Your task to perform on an android device: Show me recent news Image 0: 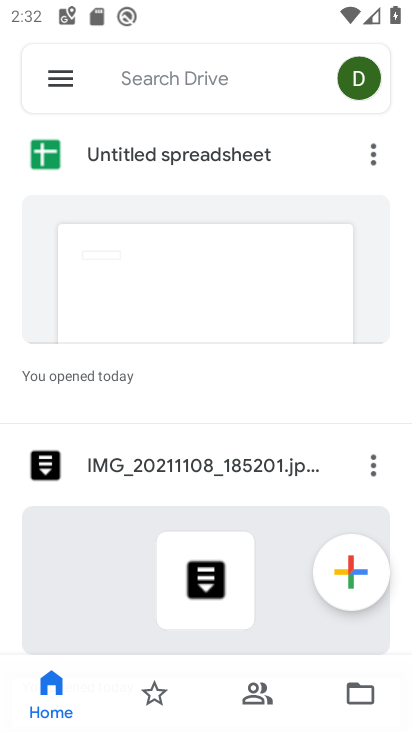
Step 0: press home button
Your task to perform on an android device: Show me recent news Image 1: 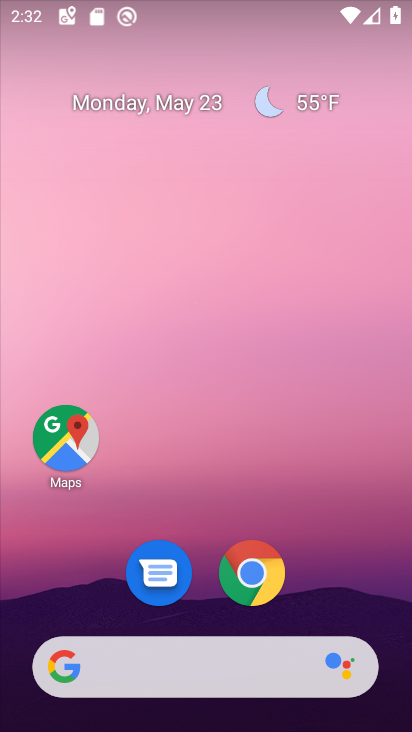
Step 1: click (229, 668)
Your task to perform on an android device: Show me recent news Image 2: 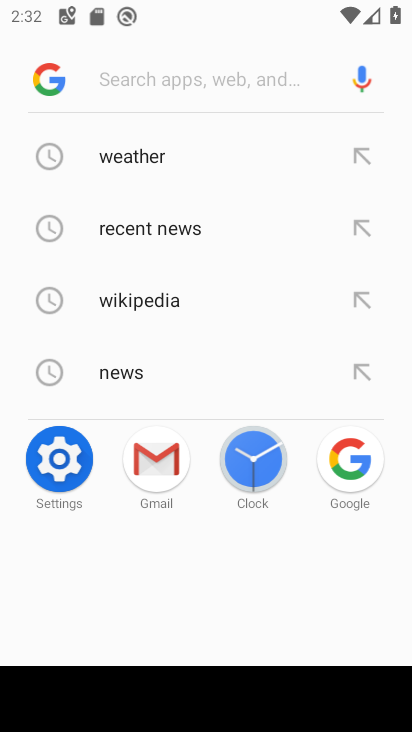
Step 2: click (168, 225)
Your task to perform on an android device: Show me recent news Image 3: 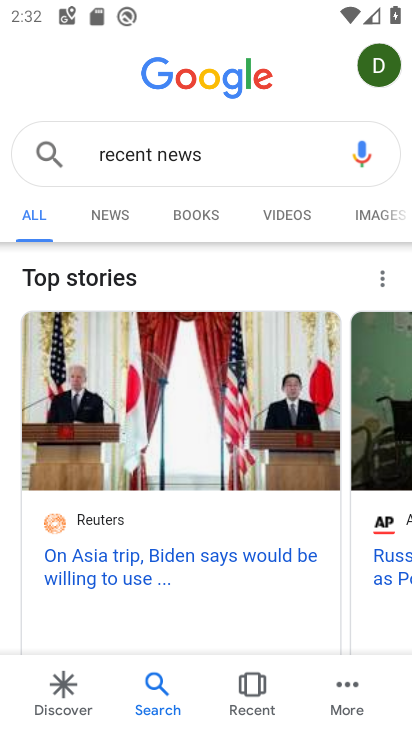
Step 3: click (99, 210)
Your task to perform on an android device: Show me recent news Image 4: 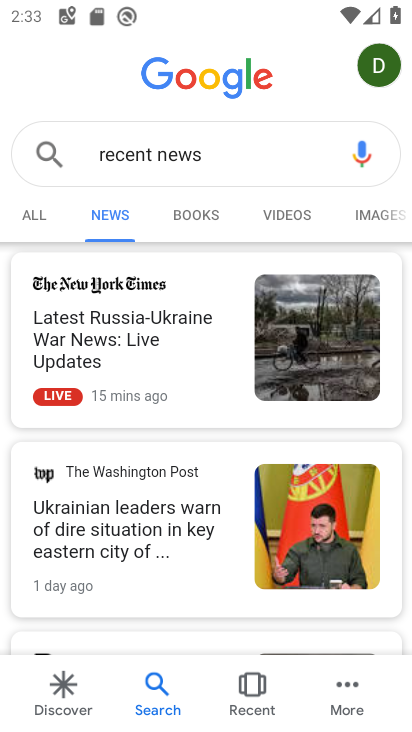
Step 4: task complete